Your task to perform on an android device: delete location history Image 0: 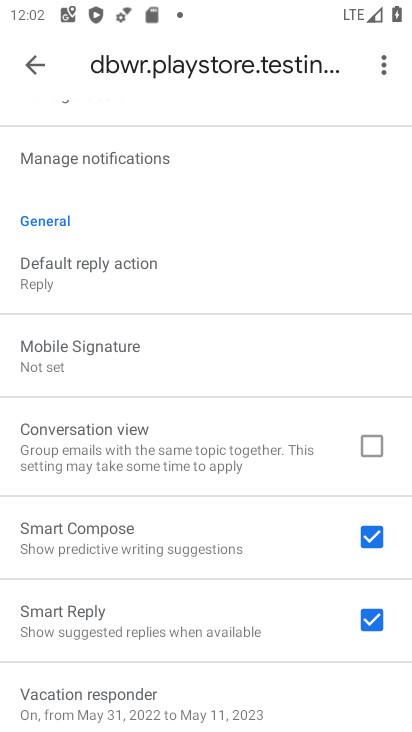
Step 0: press home button
Your task to perform on an android device: delete location history Image 1: 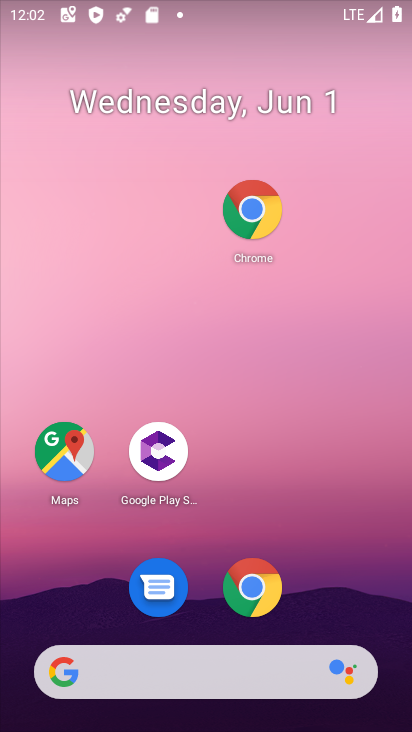
Step 1: click (46, 453)
Your task to perform on an android device: delete location history Image 2: 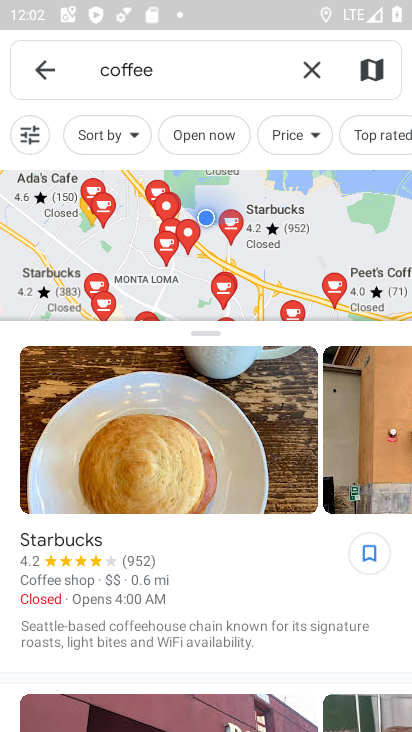
Step 2: click (37, 73)
Your task to perform on an android device: delete location history Image 3: 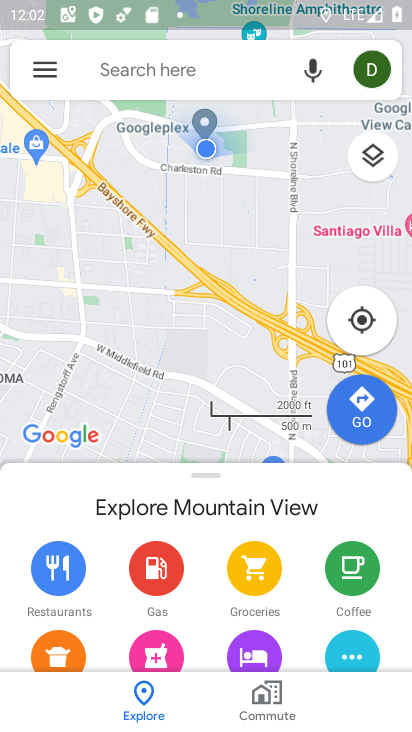
Step 3: click (37, 73)
Your task to perform on an android device: delete location history Image 4: 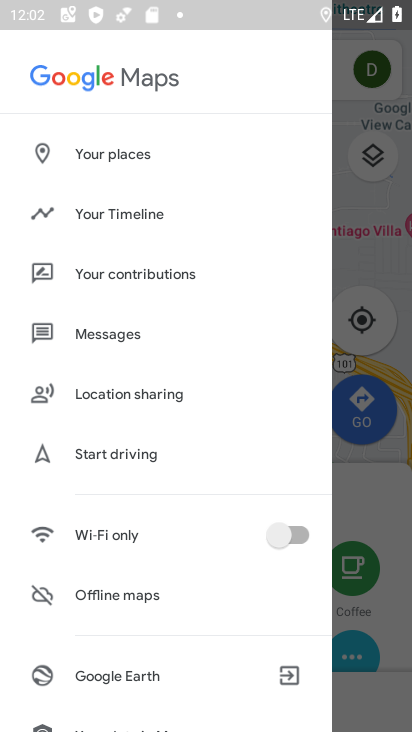
Step 4: click (125, 216)
Your task to perform on an android device: delete location history Image 5: 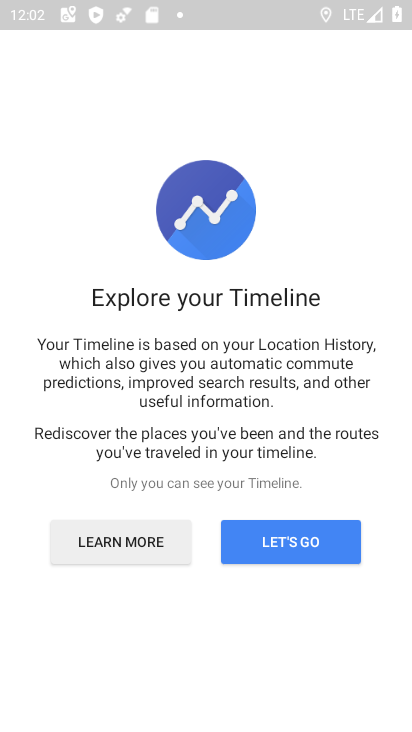
Step 5: click (248, 560)
Your task to perform on an android device: delete location history Image 6: 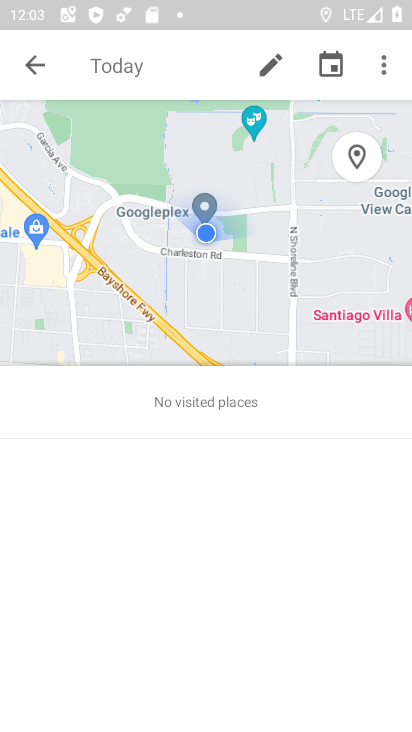
Step 6: click (396, 69)
Your task to perform on an android device: delete location history Image 7: 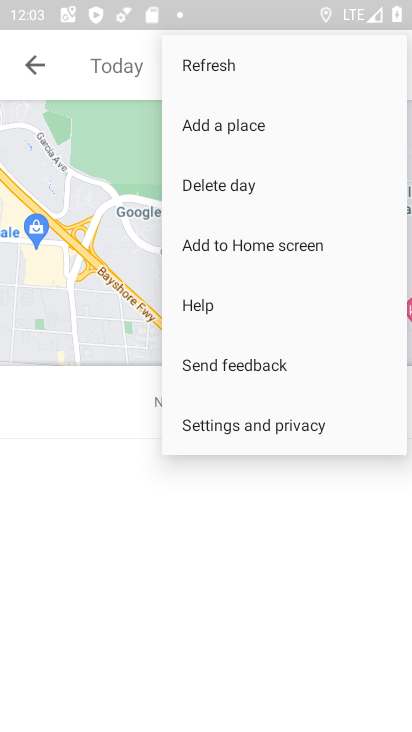
Step 7: click (223, 196)
Your task to perform on an android device: delete location history Image 8: 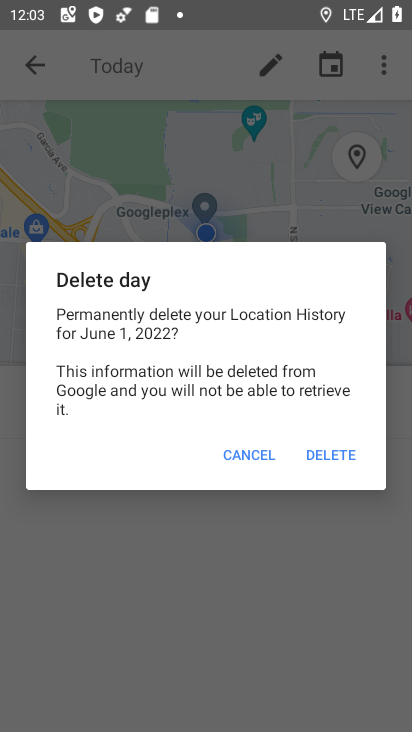
Step 8: click (329, 452)
Your task to perform on an android device: delete location history Image 9: 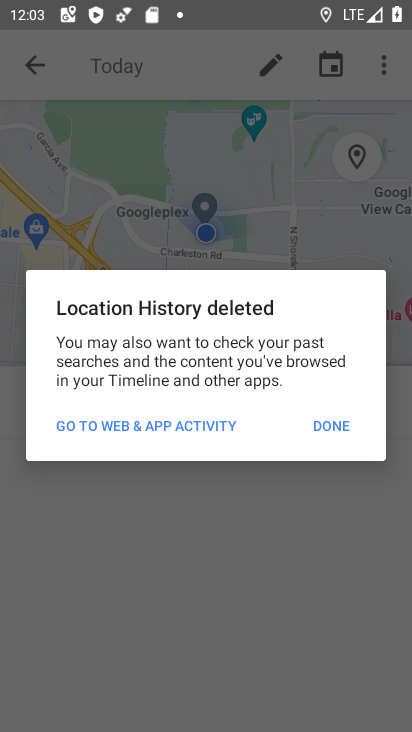
Step 9: click (328, 424)
Your task to perform on an android device: delete location history Image 10: 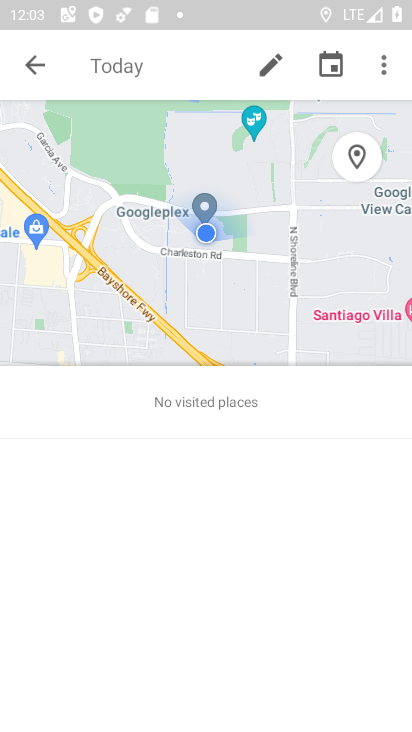
Step 10: task complete